Your task to perform on an android device: Go to calendar. Show me events next week Image 0: 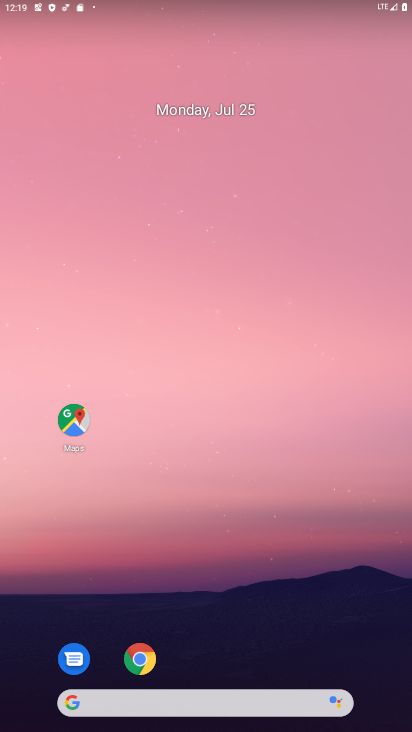
Step 0: drag from (44, 629) to (287, 187)
Your task to perform on an android device: Go to calendar. Show me events next week Image 1: 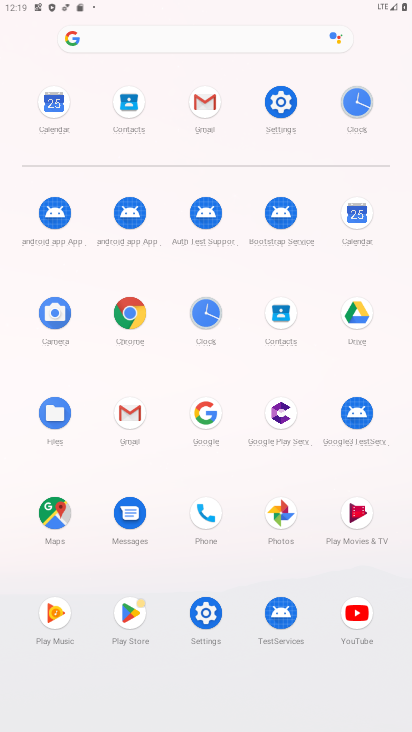
Step 1: click (359, 211)
Your task to perform on an android device: Go to calendar. Show me events next week Image 2: 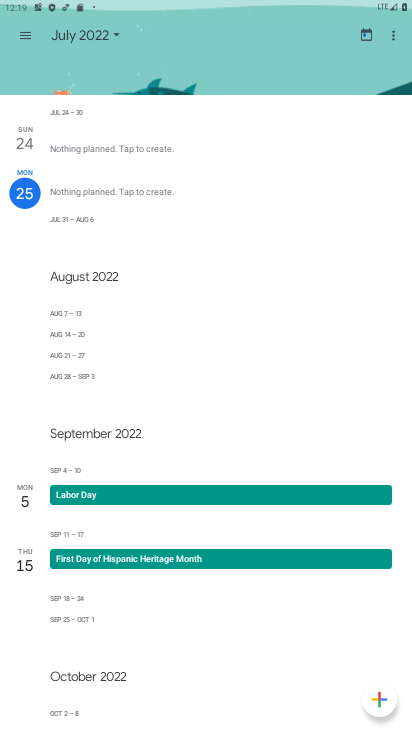
Step 2: click (117, 35)
Your task to perform on an android device: Go to calendar. Show me events next week Image 3: 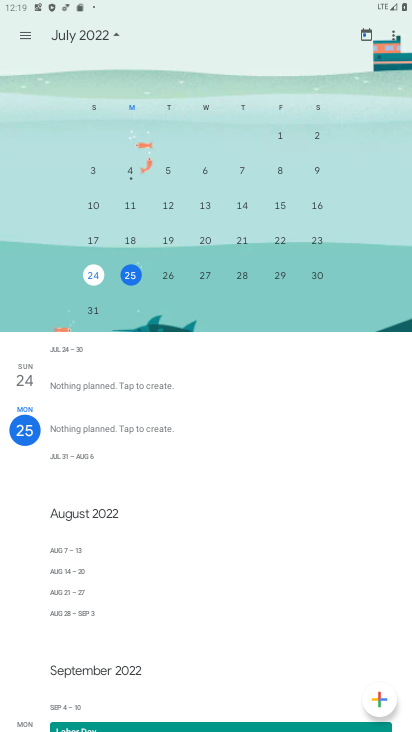
Step 3: task complete